Your task to perform on an android device: turn on data saver in the chrome app Image 0: 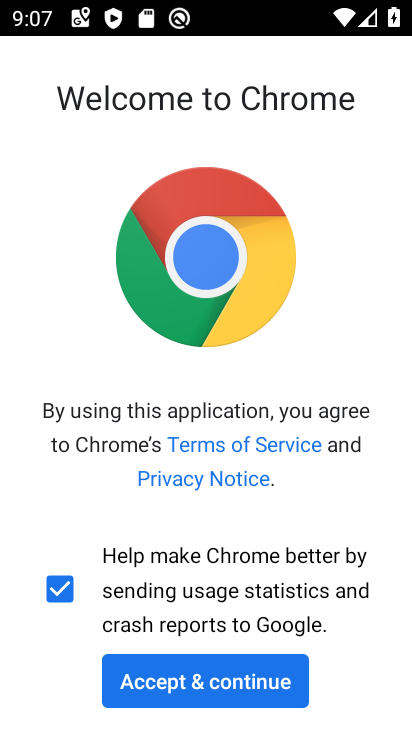
Step 0: press back button
Your task to perform on an android device: turn on data saver in the chrome app Image 1: 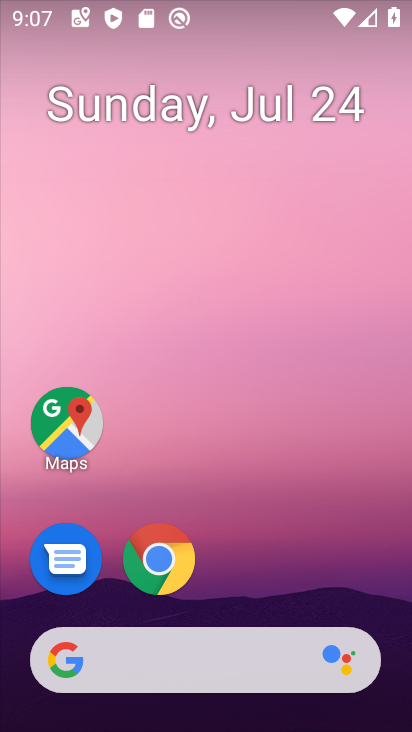
Step 1: click (156, 562)
Your task to perform on an android device: turn on data saver in the chrome app Image 2: 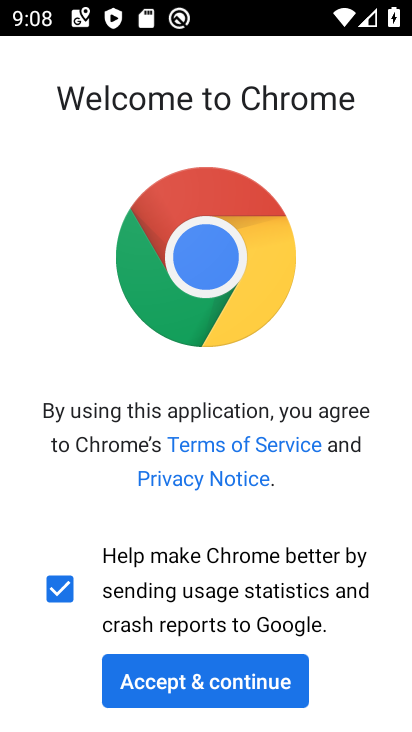
Step 2: press back button
Your task to perform on an android device: turn on data saver in the chrome app Image 3: 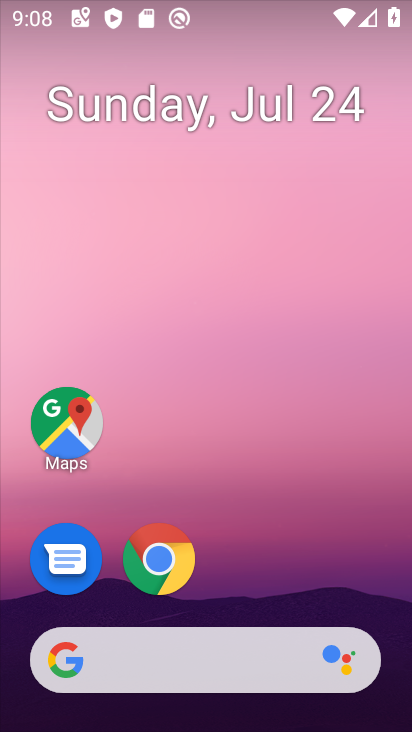
Step 3: click (168, 561)
Your task to perform on an android device: turn on data saver in the chrome app Image 4: 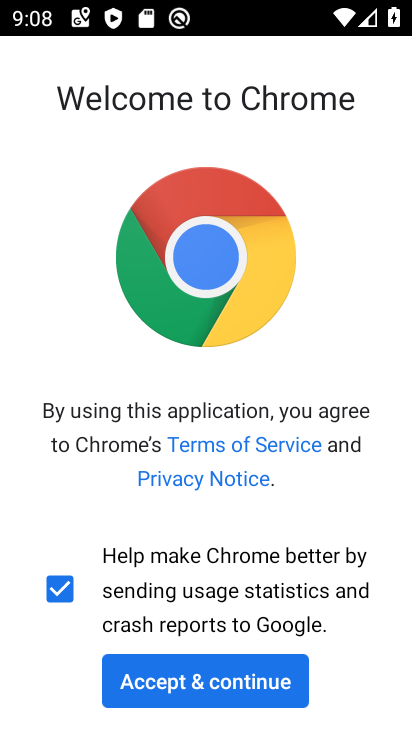
Step 4: click (194, 687)
Your task to perform on an android device: turn on data saver in the chrome app Image 5: 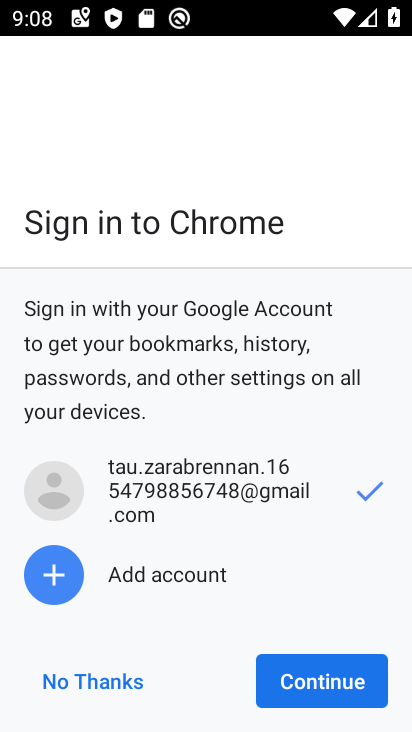
Step 5: click (313, 687)
Your task to perform on an android device: turn on data saver in the chrome app Image 6: 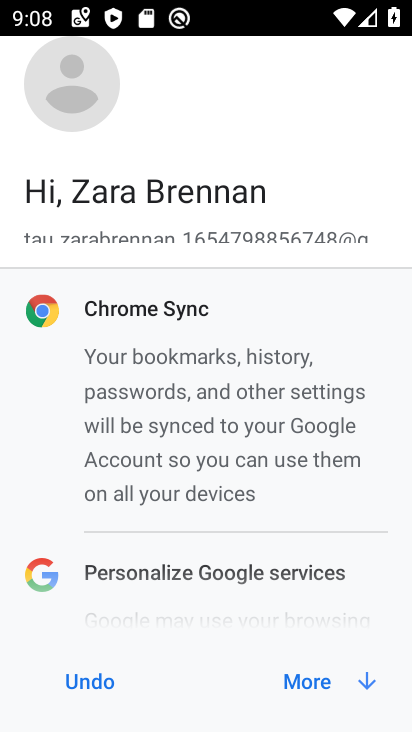
Step 6: click (320, 670)
Your task to perform on an android device: turn on data saver in the chrome app Image 7: 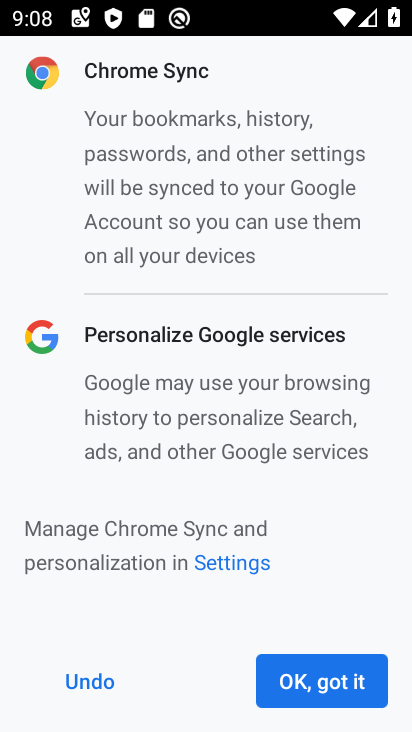
Step 7: click (318, 675)
Your task to perform on an android device: turn on data saver in the chrome app Image 8: 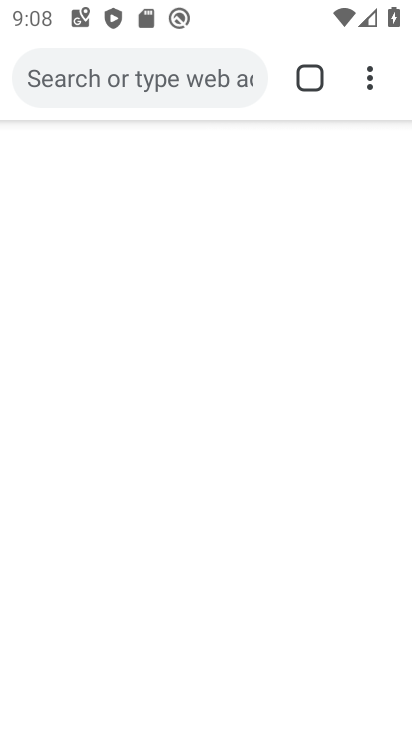
Step 8: drag from (362, 70) to (131, 638)
Your task to perform on an android device: turn on data saver in the chrome app Image 9: 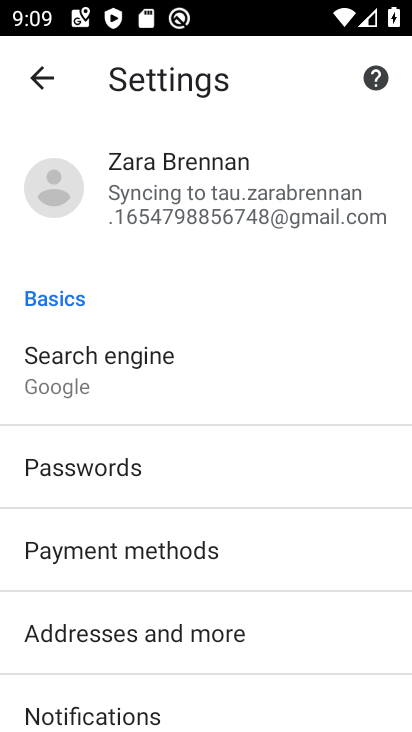
Step 9: drag from (145, 629) to (236, 38)
Your task to perform on an android device: turn on data saver in the chrome app Image 10: 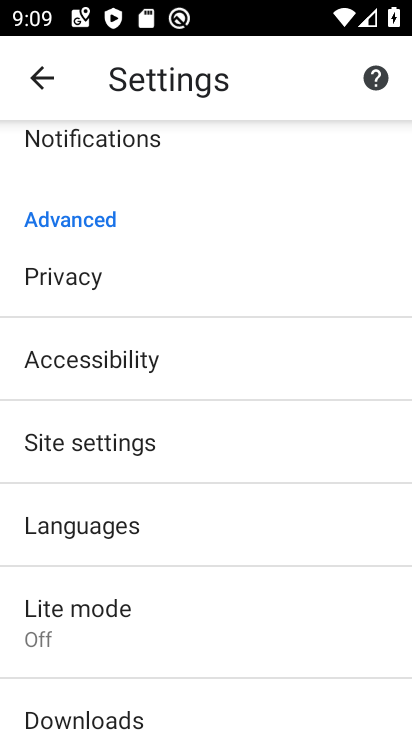
Step 10: click (74, 609)
Your task to perform on an android device: turn on data saver in the chrome app Image 11: 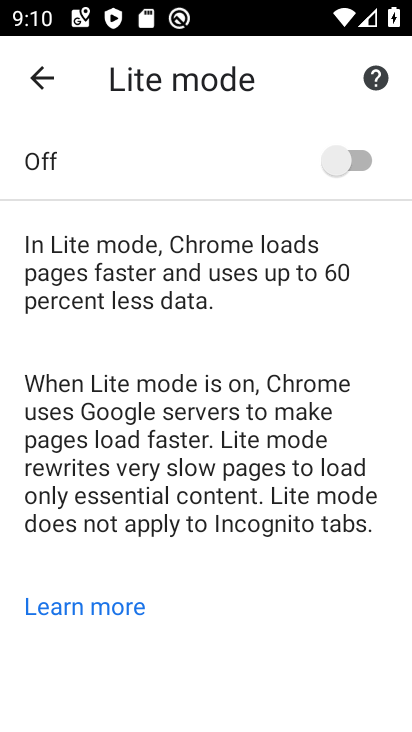
Step 11: click (328, 140)
Your task to perform on an android device: turn on data saver in the chrome app Image 12: 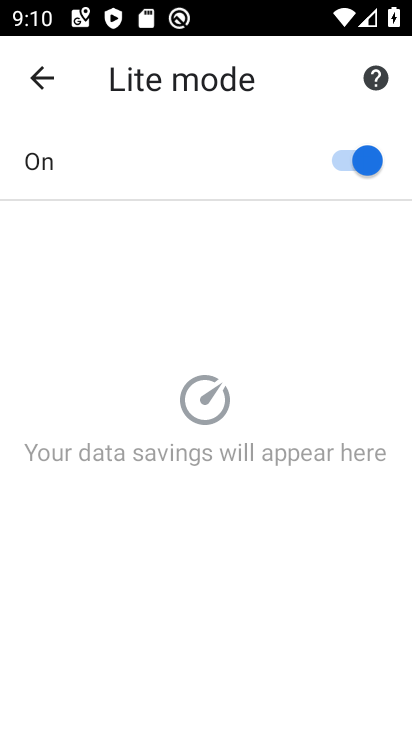
Step 12: task complete